Your task to perform on an android device: Open a new private tab in Chrome Image 0: 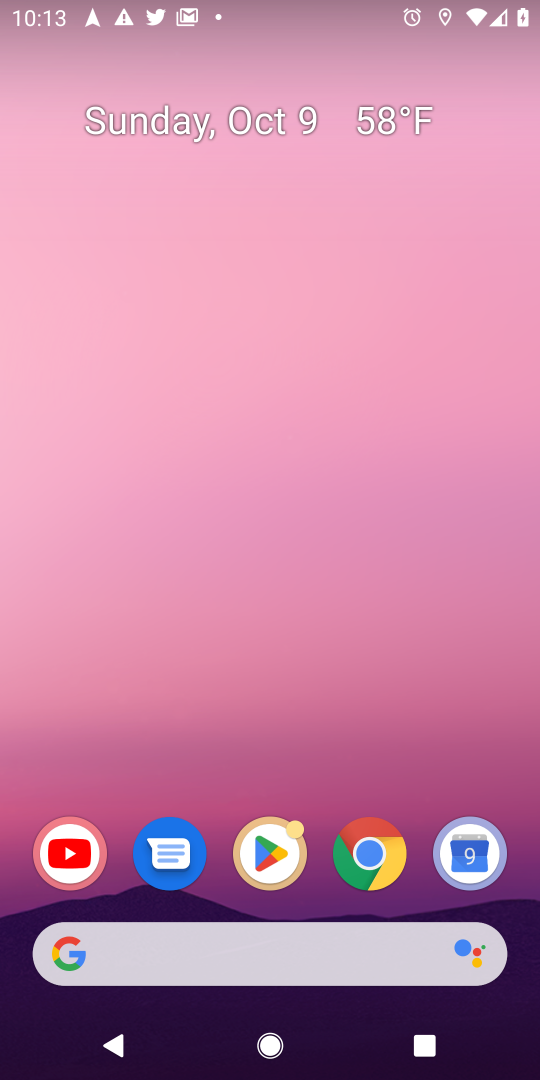
Step 0: click (371, 841)
Your task to perform on an android device: Open a new private tab in Chrome Image 1: 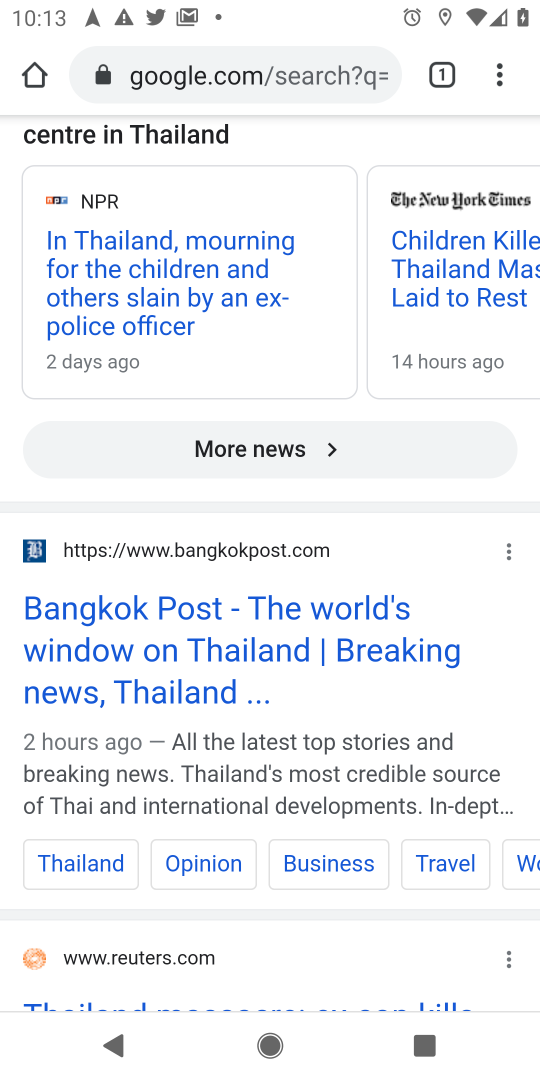
Step 1: click (430, 72)
Your task to perform on an android device: Open a new private tab in Chrome Image 2: 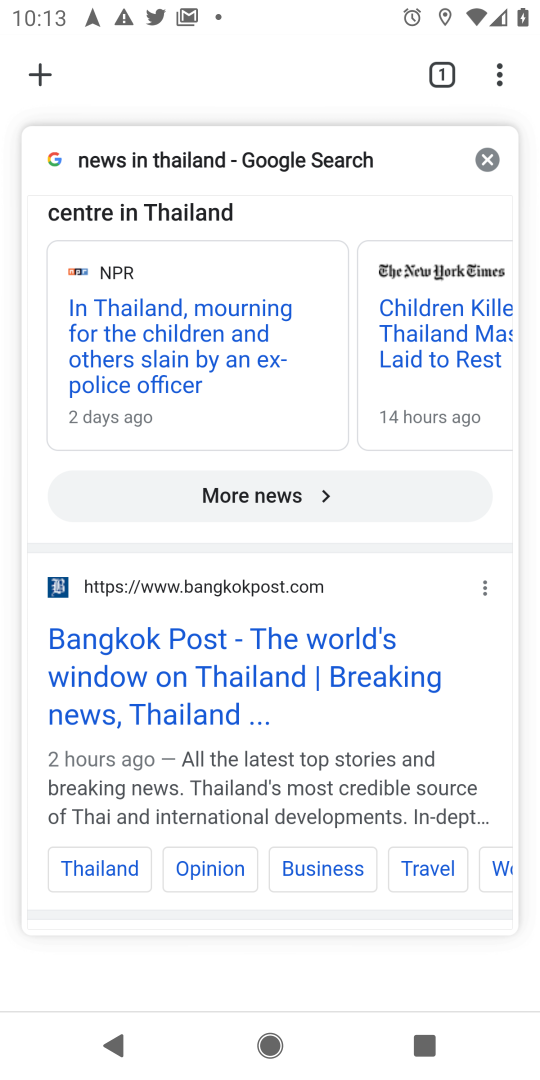
Step 2: click (490, 165)
Your task to perform on an android device: Open a new private tab in Chrome Image 3: 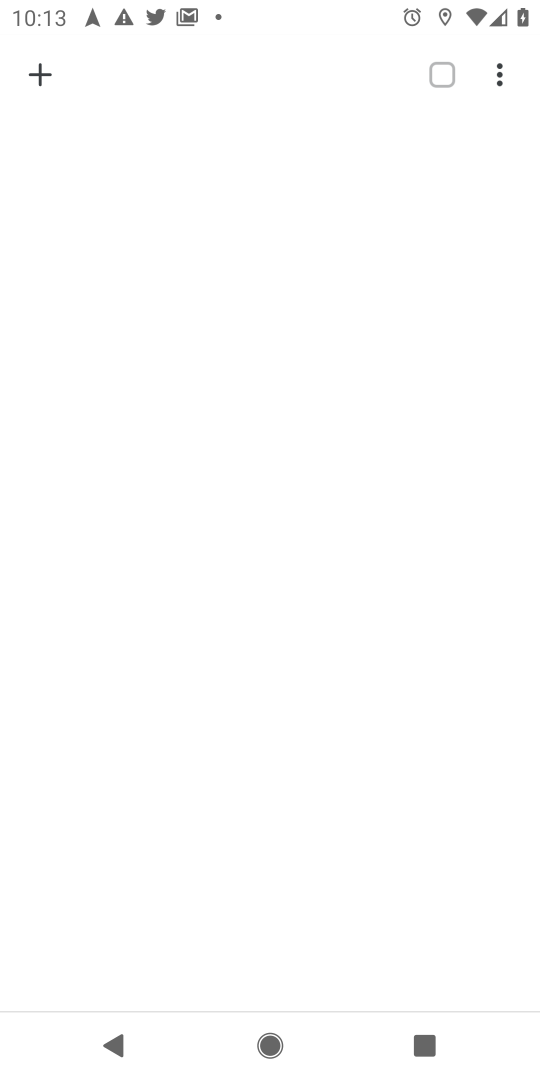
Step 3: click (46, 73)
Your task to perform on an android device: Open a new private tab in Chrome Image 4: 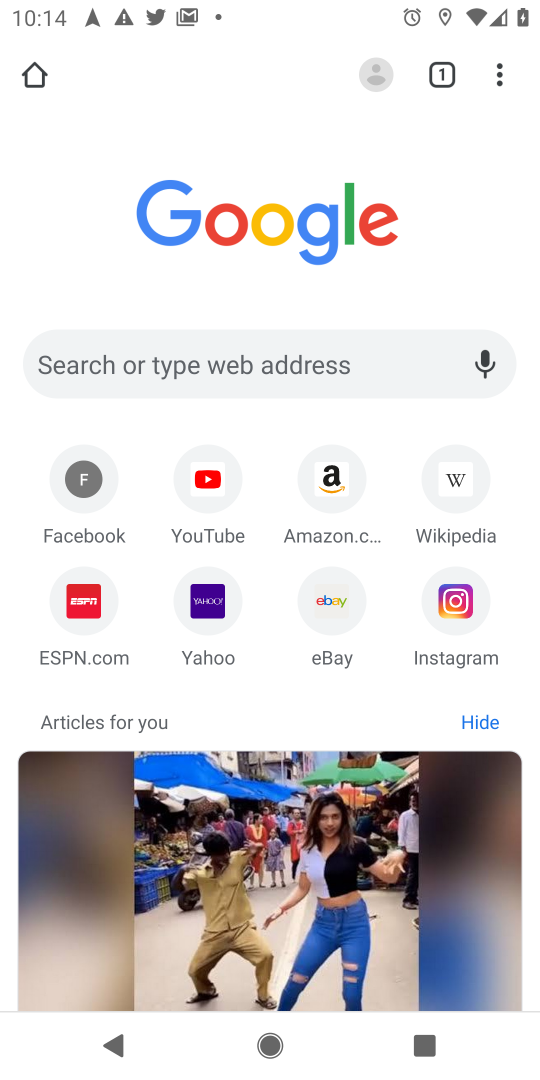
Step 4: click (497, 77)
Your task to perform on an android device: Open a new private tab in Chrome Image 5: 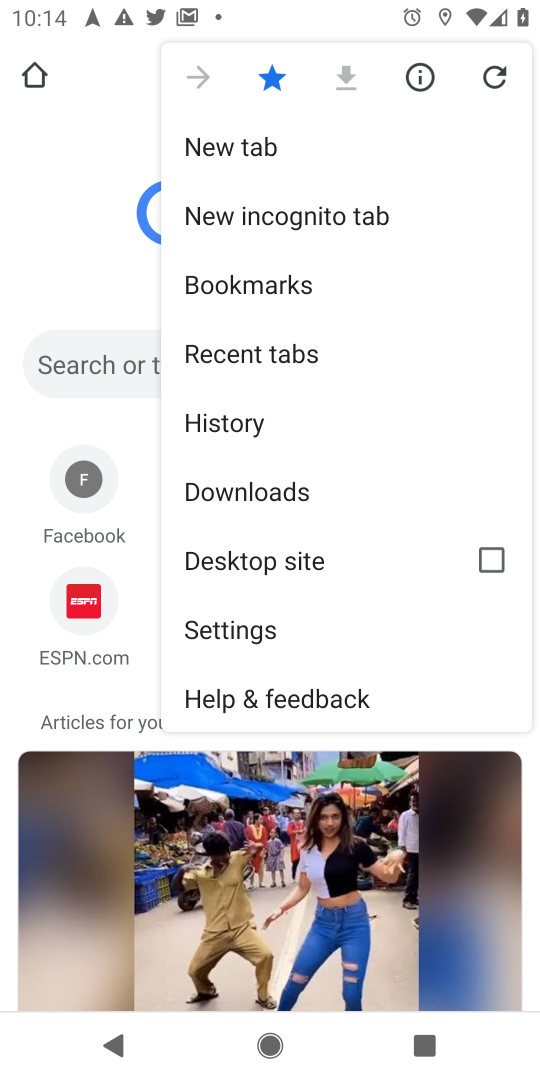
Step 5: click (316, 218)
Your task to perform on an android device: Open a new private tab in Chrome Image 6: 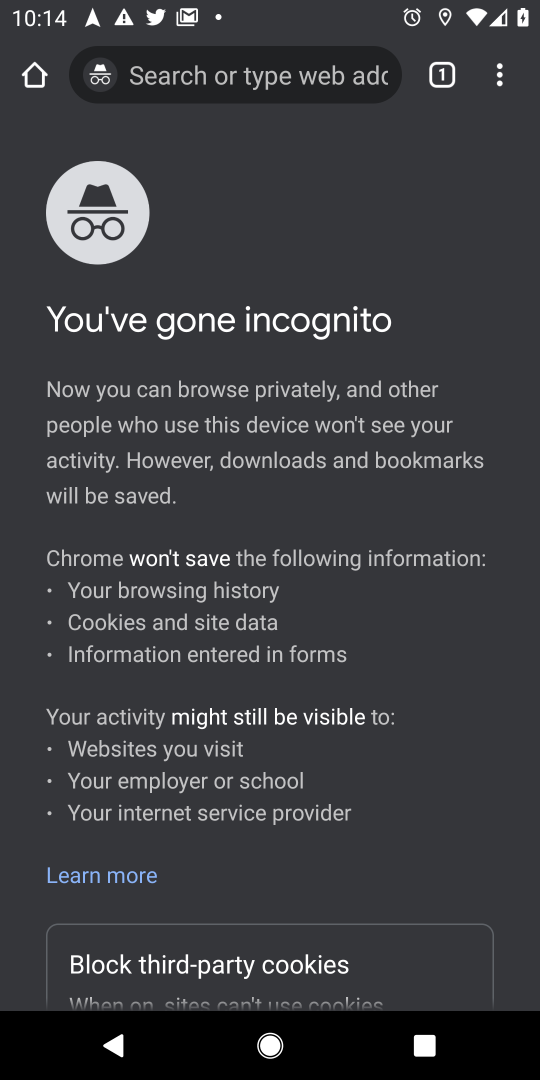
Step 6: task complete